Your task to perform on an android device: Show me recent news Image 0: 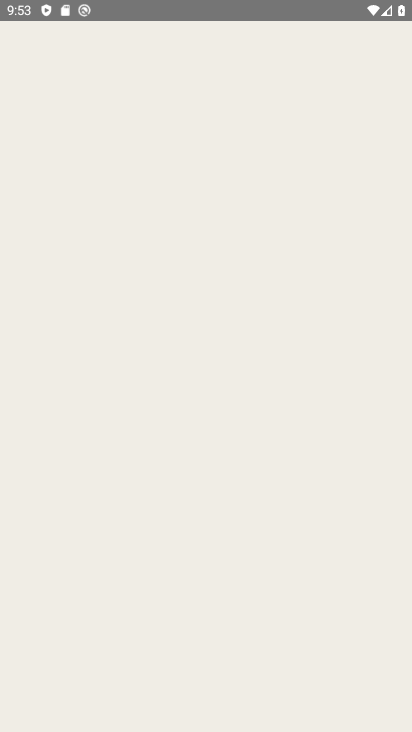
Step 0: click (138, 629)
Your task to perform on an android device: Show me recent news Image 1: 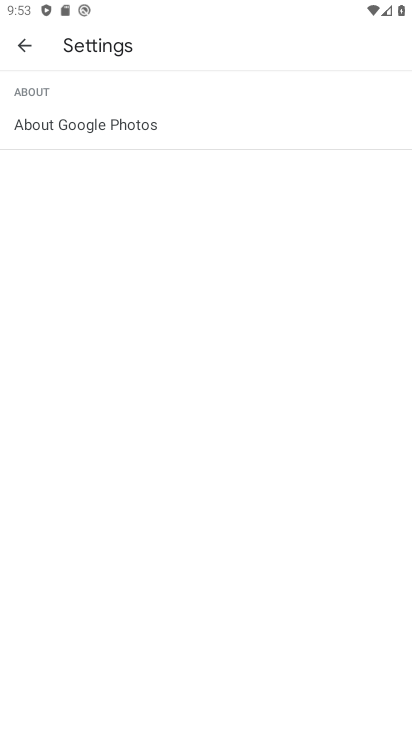
Step 1: click (29, 54)
Your task to perform on an android device: Show me recent news Image 2: 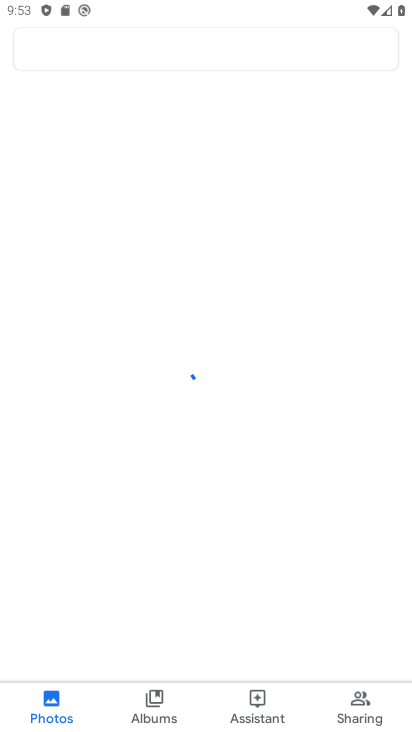
Step 2: press home button
Your task to perform on an android device: Show me recent news Image 3: 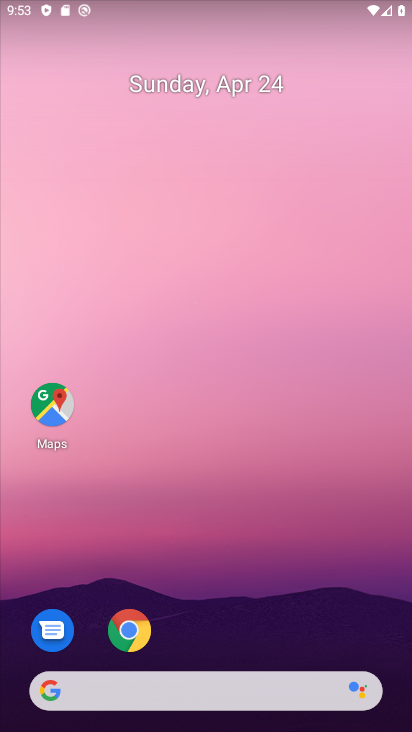
Step 3: drag from (234, 198) to (227, 161)
Your task to perform on an android device: Show me recent news Image 4: 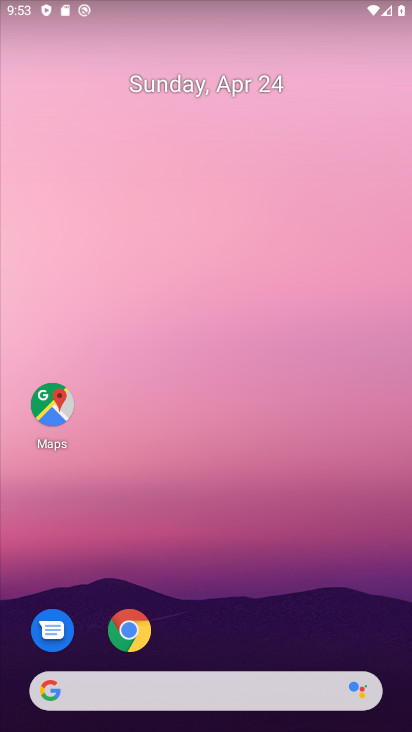
Step 4: drag from (218, 554) to (221, 107)
Your task to perform on an android device: Show me recent news Image 5: 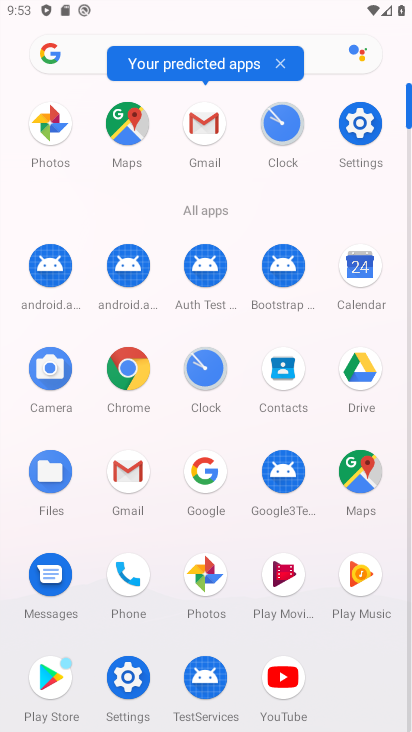
Step 5: click (207, 469)
Your task to perform on an android device: Show me recent news Image 6: 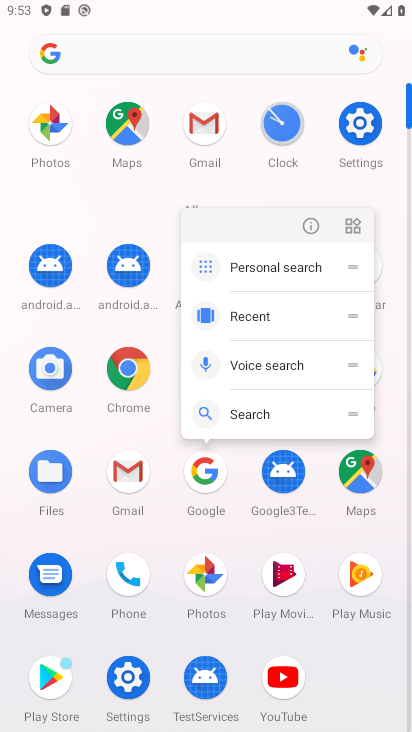
Step 6: click (199, 474)
Your task to perform on an android device: Show me recent news Image 7: 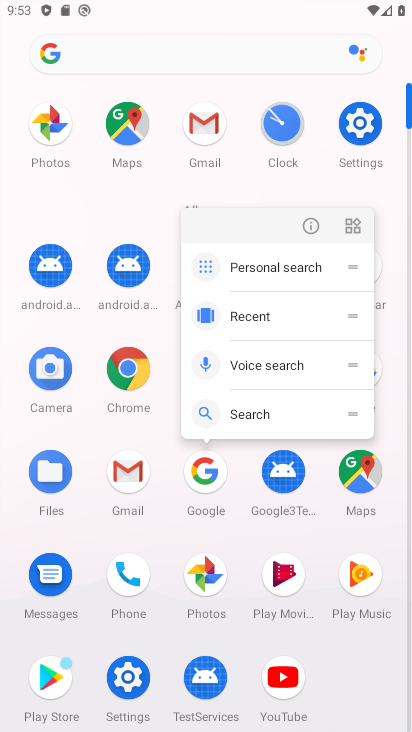
Step 7: click (199, 474)
Your task to perform on an android device: Show me recent news Image 8: 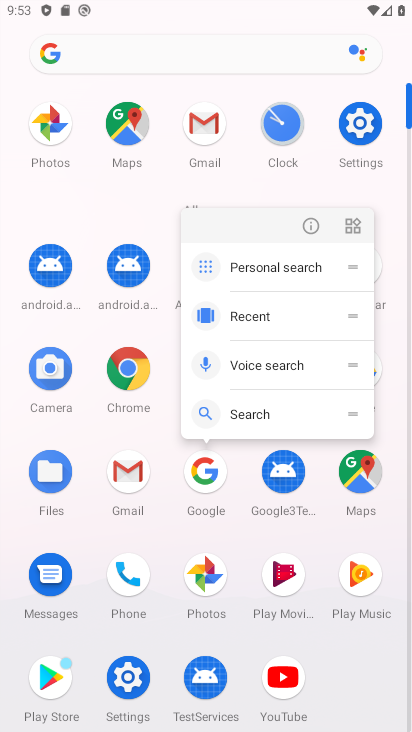
Step 8: click (205, 469)
Your task to perform on an android device: Show me recent news Image 9: 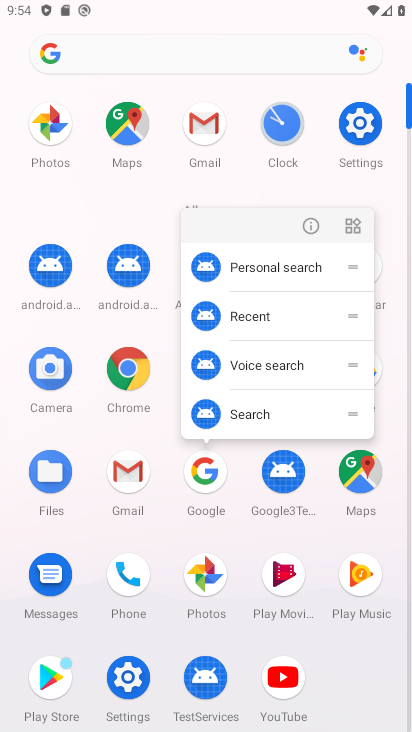
Step 9: click (205, 469)
Your task to perform on an android device: Show me recent news Image 10: 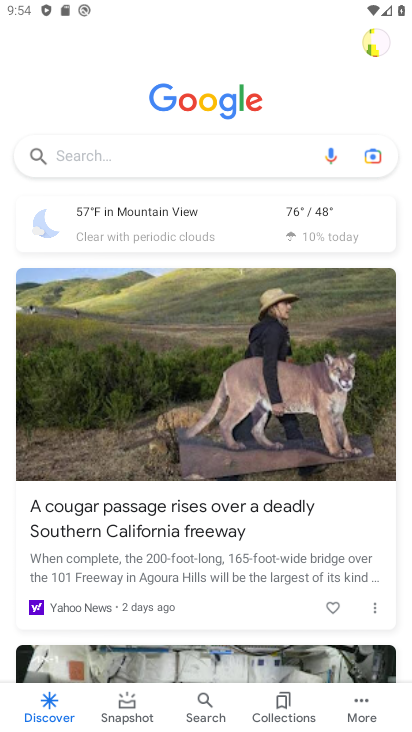
Step 10: click (161, 159)
Your task to perform on an android device: Show me recent news Image 11: 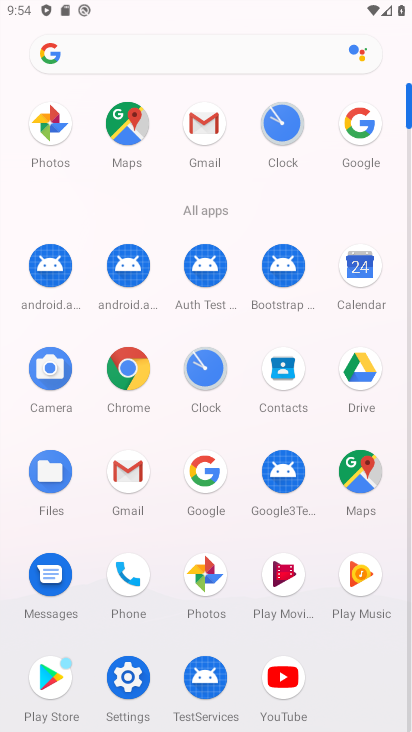
Step 11: click (213, 469)
Your task to perform on an android device: Show me recent news Image 12: 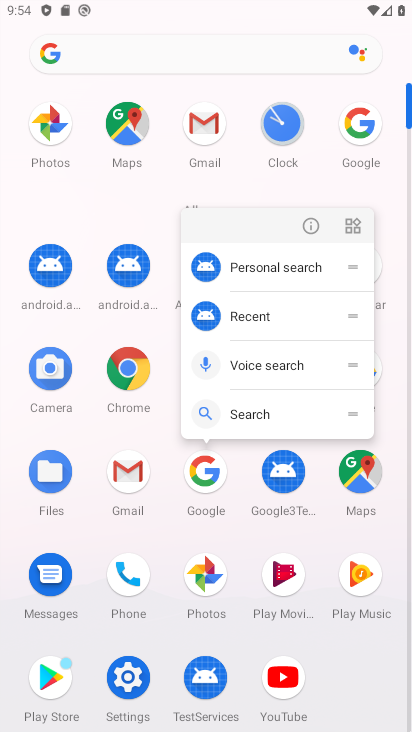
Step 12: click (212, 470)
Your task to perform on an android device: Show me recent news Image 13: 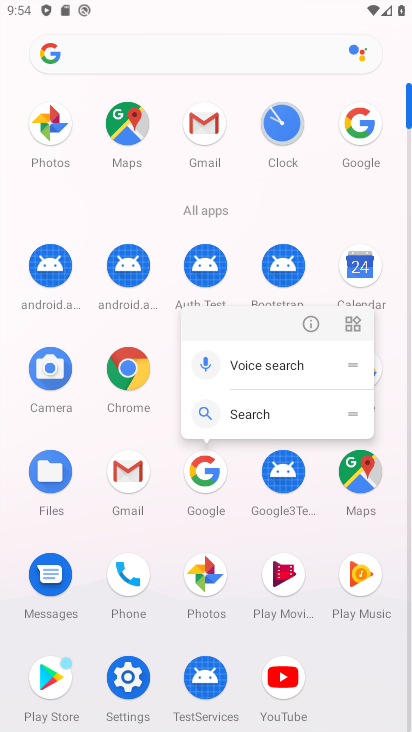
Step 13: click (212, 470)
Your task to perform on an android device: Show me recent news Image 14: 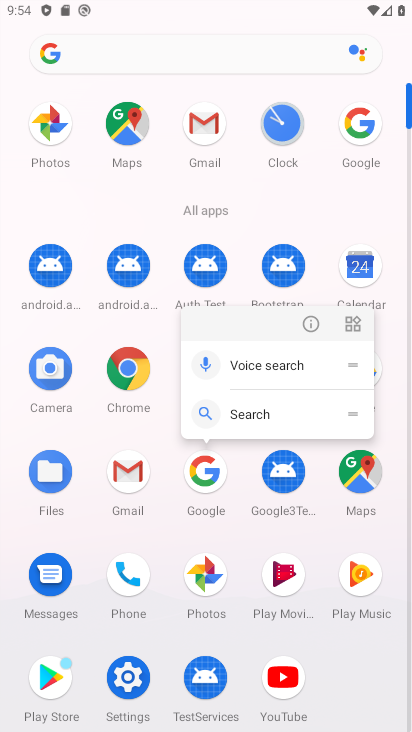
Step 14: click (212, 471)
Your task to perform on an android device: Show me recent news Image 15: 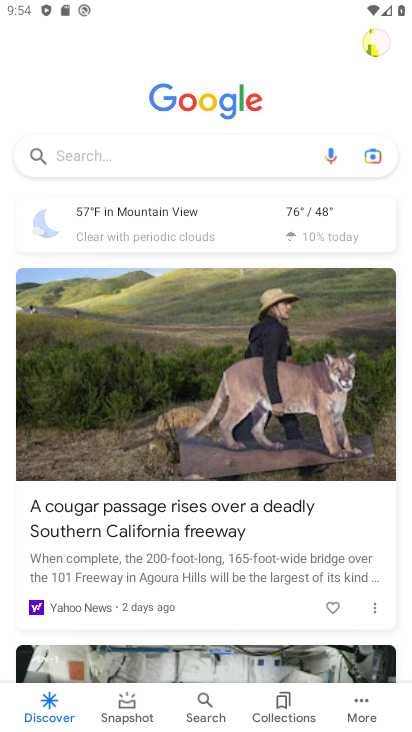
Step 15: click (115, 151)
Your task to perform on an android device: Show me recent news Image 16: 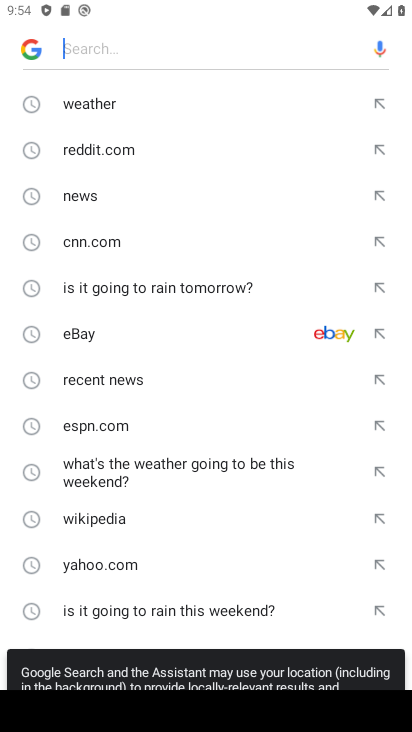
Step 16: type "recent news"
Your task to perform on an android device: Show me recent news Image 17: 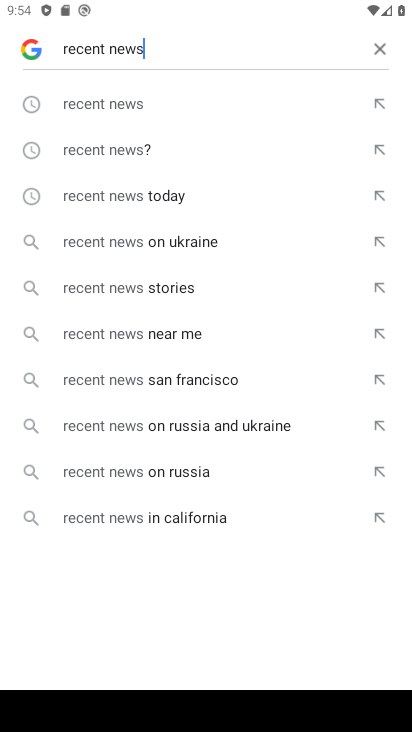
Step 17: click (115, 104)
Your task to perform on an android device: Show me recent news Image 18: 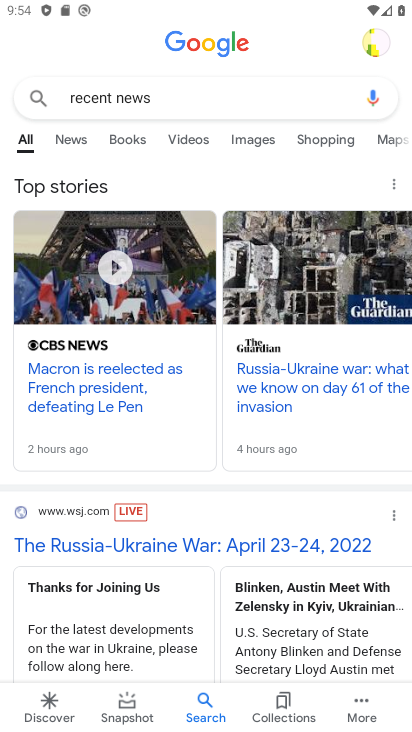
Step 18: click (84, 139)
Your task to perform on an android device: Show me recent news Image 19: 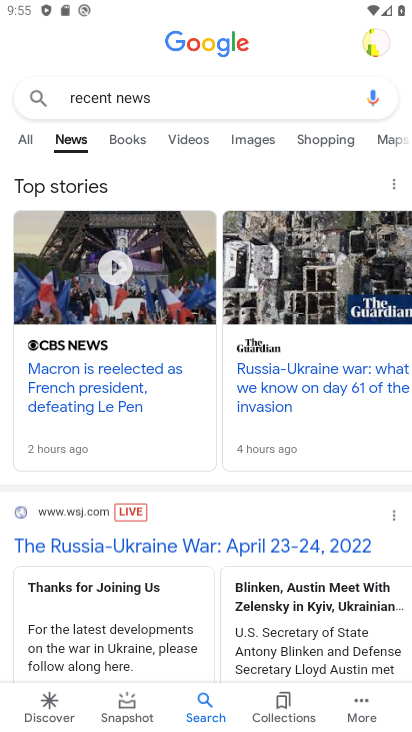
Step 19: task complete